Your task to perform on an android device: change notifications settings Image 0: 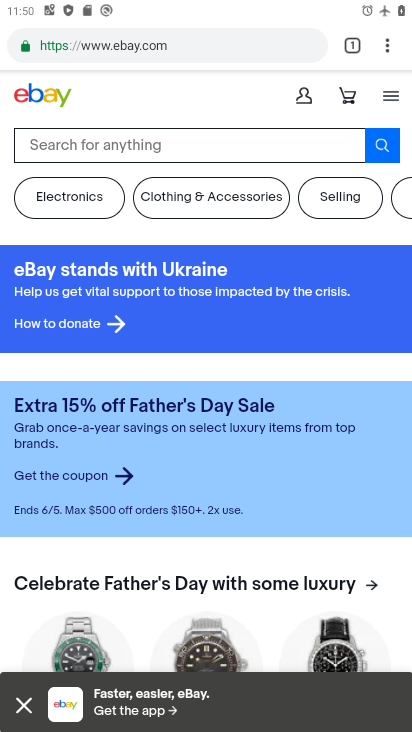
Step 0: press home button
Your task to perform on an android device: change notifications settings Image 1: 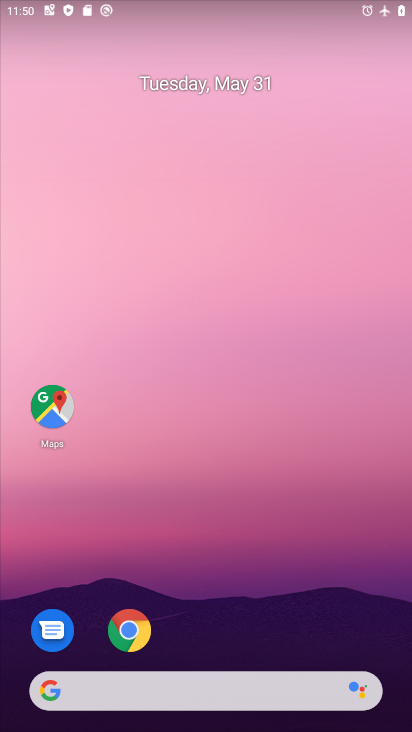
Step 1: drag from (115, 728) to (141, 113)
Your task to perform on an android device: change notifications settings Image 2: 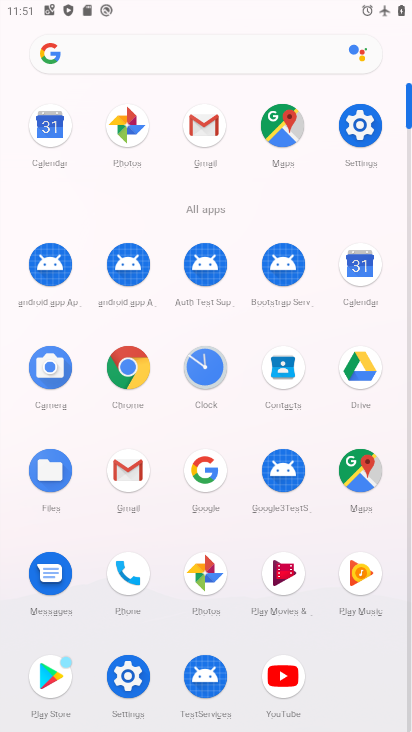
Step 2: click (359, 138)
Your task to perform on an android device: change notifications settings Image 3: 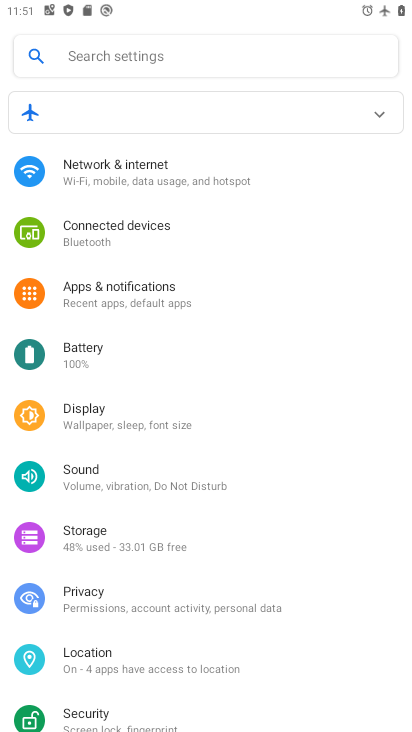
Step 3: click (127, 295)
Your task to perform on an android device: change notifications settings Image 4: 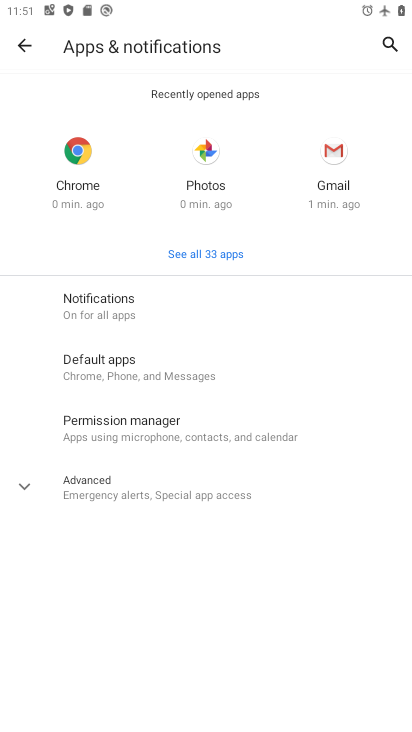
Step 4: click (115, 313)
Your task to perform on an android device: change notifications settings Image 5: 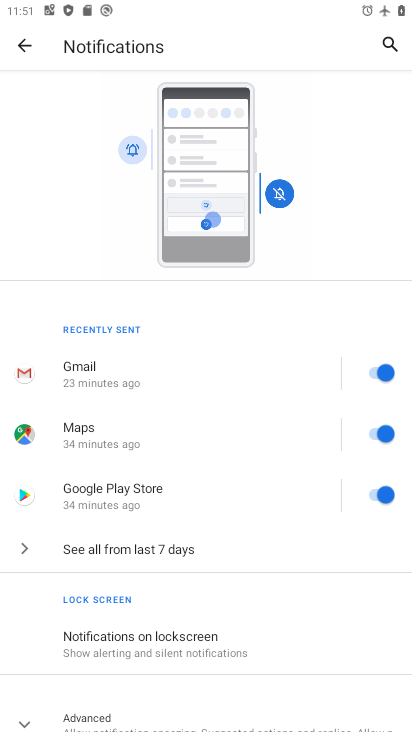
Step 5: click (241, 651)
Your task to perform on an android device: change notifications settings Image 6: 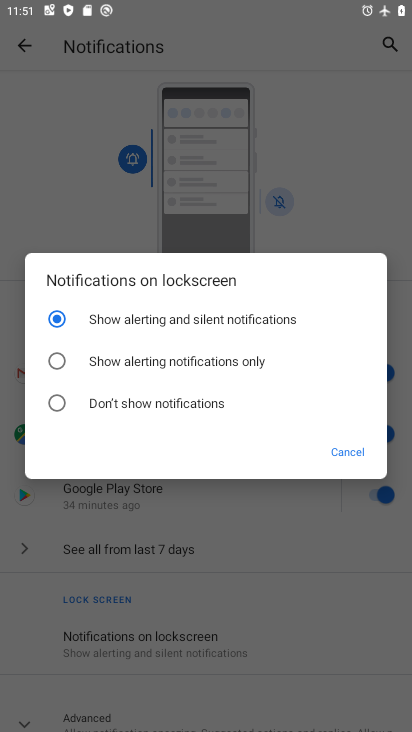
Step 6: click (219, 361)
Your task to perform on an android device: change notifications settings Image 7: 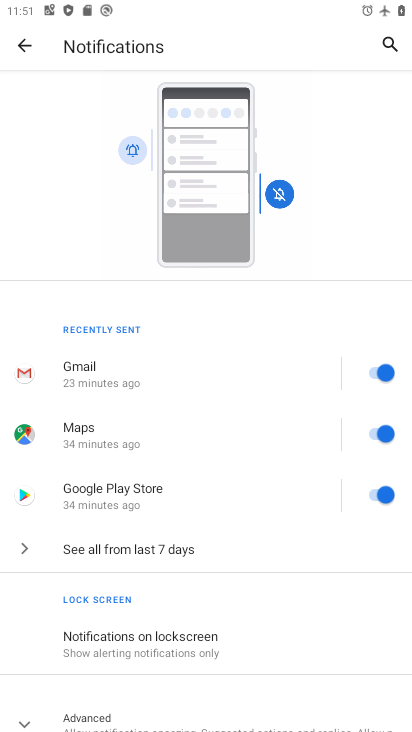
Step 7: task complete